Your task to perform on an android device: Open CNN.com Image 0: 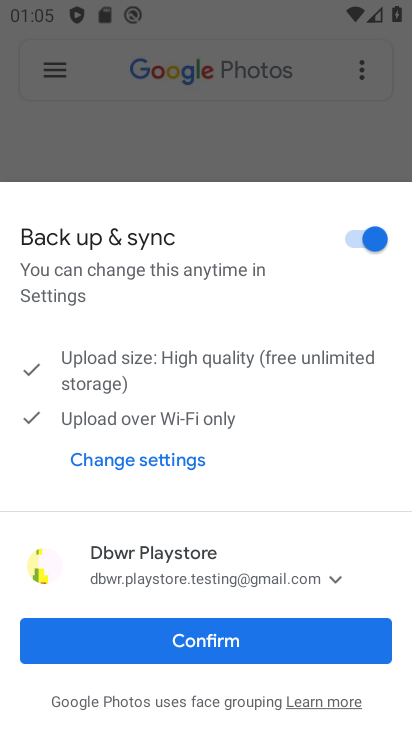
Step 0: press home button
Your task to perform on an android device: Open CNN.com Image 1: 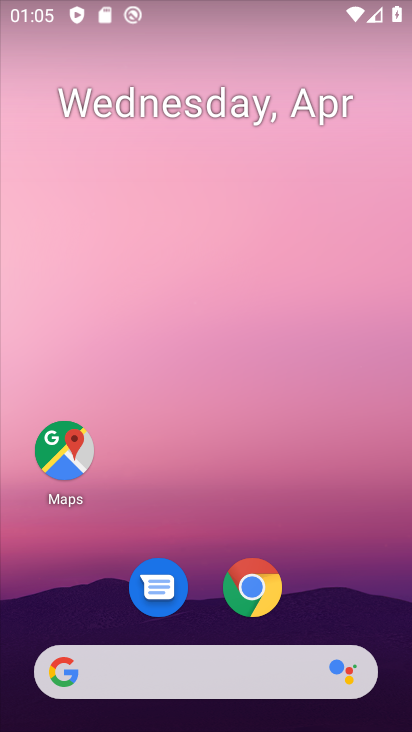
Step 1: click (251, 587)
Your task to perform on an android device: Open CNN.com Image 2: 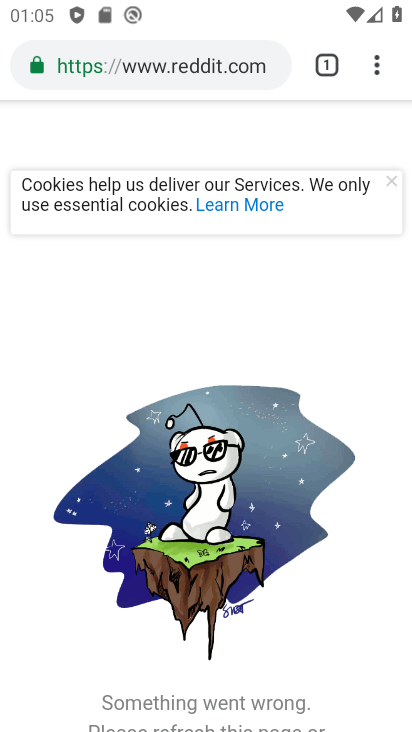
Step 2: click (199, 71)
Your task to perform on an android device: Open CNN.com Image 3: 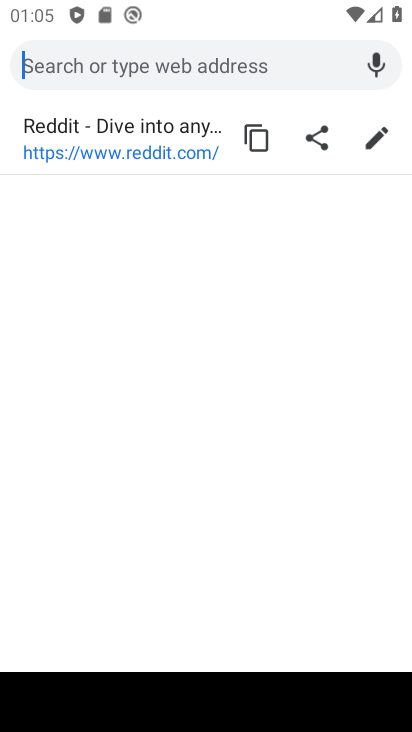
Step 3: type "cnn.com"
Your task to perform on an android device: Open CNN.com Image 4: 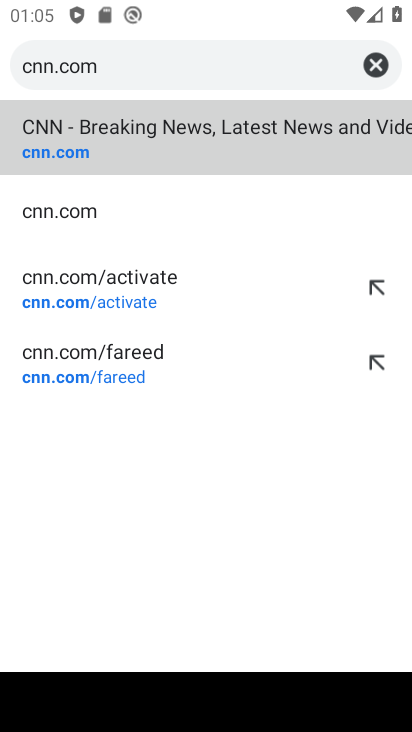
Step 4: click (49, 219)
Your task to perform on an android device: Open CNN.com Image 5: 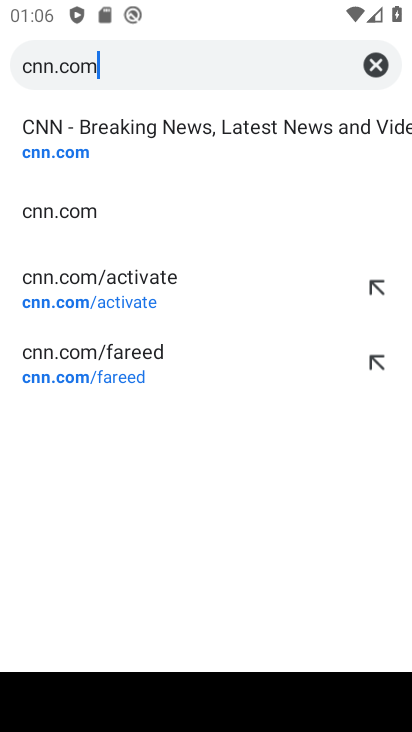
Step 5: click (53, 216)
Your task to perform on an android device: Open CNN.com Image 6: 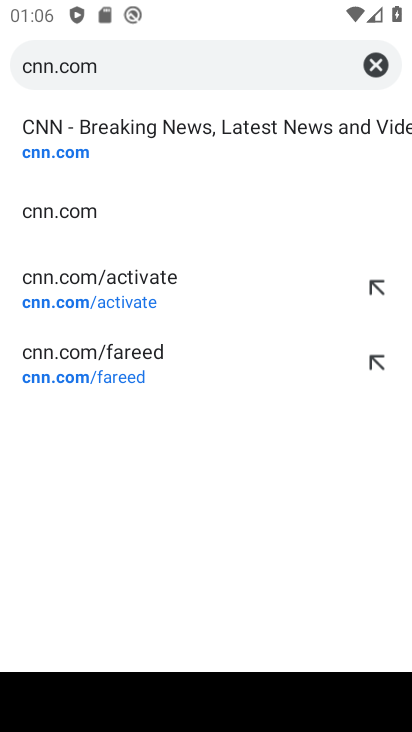
Step 6: click (53, 216)
Your task to perform on an android device: Open CNN.com Image 7: 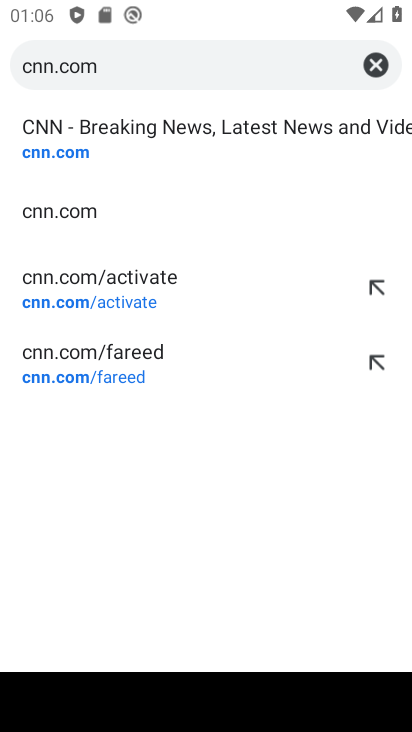
Step 7: click (55, 209)
Your task to perform on an android device: Open CNN.com Image 8: 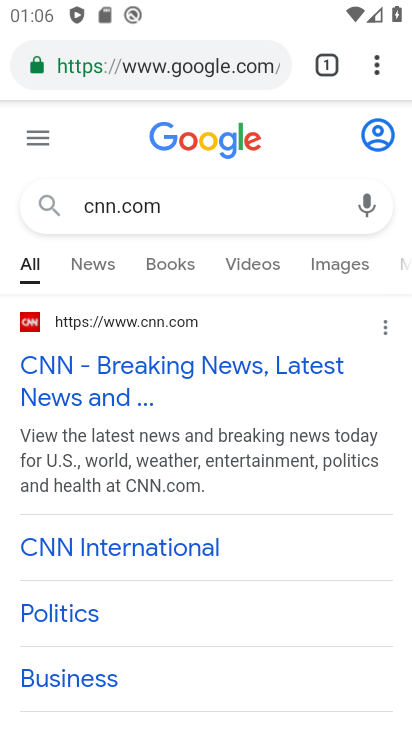
Step 8: click (33, 323)
Your task to perform on an android device: Open CNN.com Image 9: 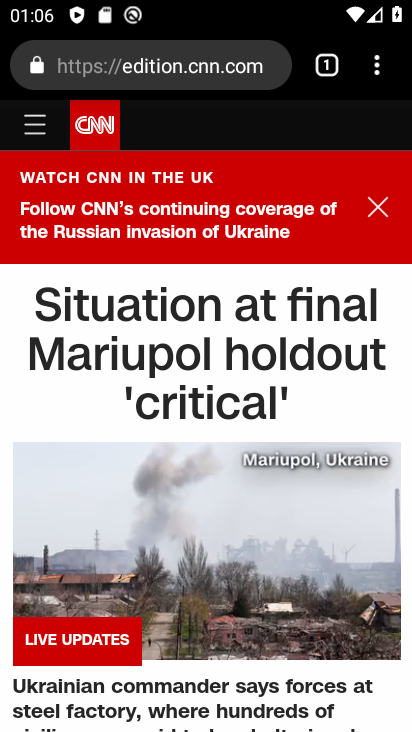
Step 9: task complete